Your task to perform on an android device: empty trash in google photos Image 0: 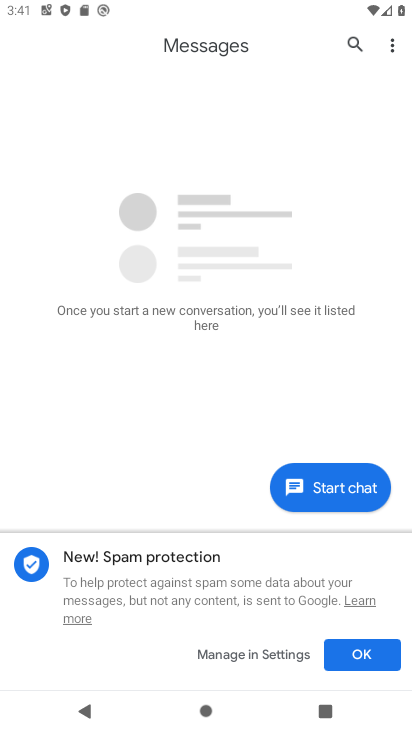
Step 0: press home button
Your task to perform on an android device: empty trash in google photos Image 1: 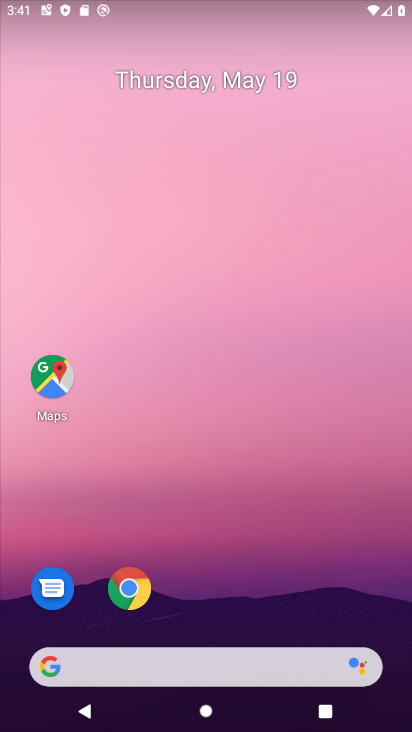
Step 1: drag from (205, 625) to (270, 125)
Your task to perform on an android device: empty trash in google photos Image 2: 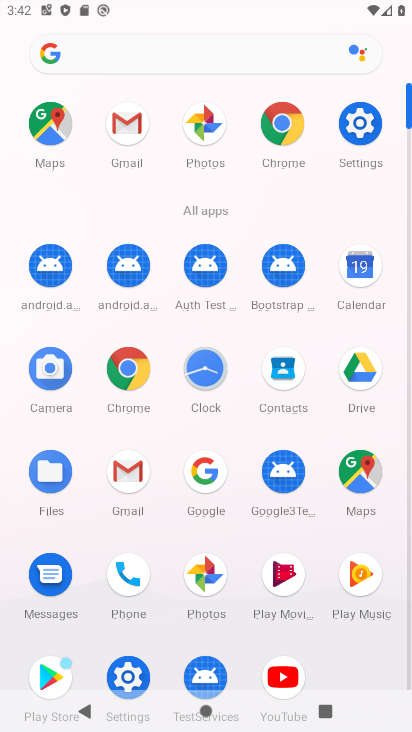
Step 2: click (195, 120)
Your task to perform on an android device: empty trash in google photos Image 3: 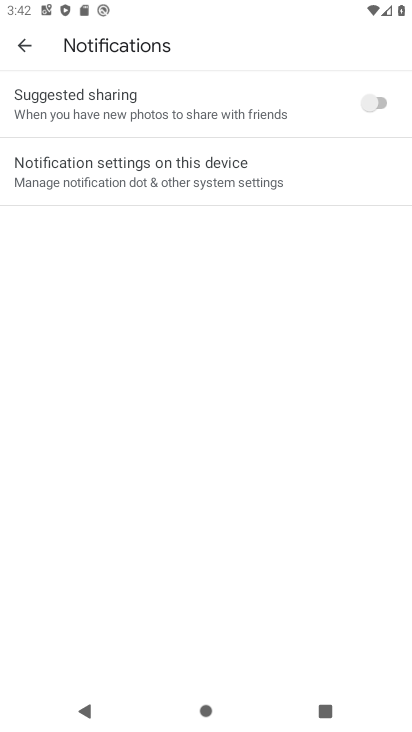
Step 3: click (40, 42)
Your task to perform on an android device: empty trash in google photos Image 4: 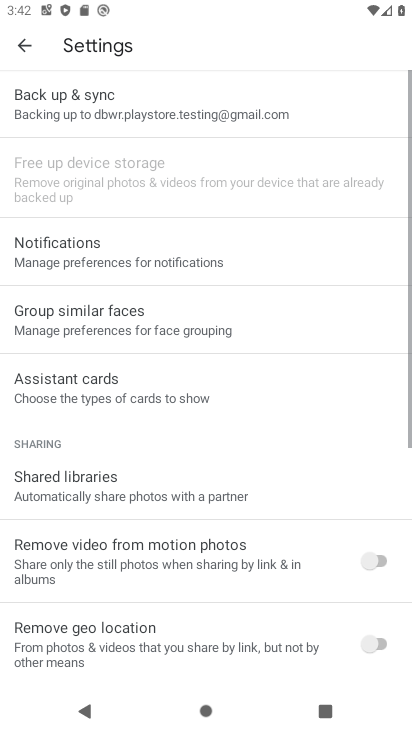
Step 4: click (40, 42)
Your task to perform on an android device: empty trash in google photos Image 5: 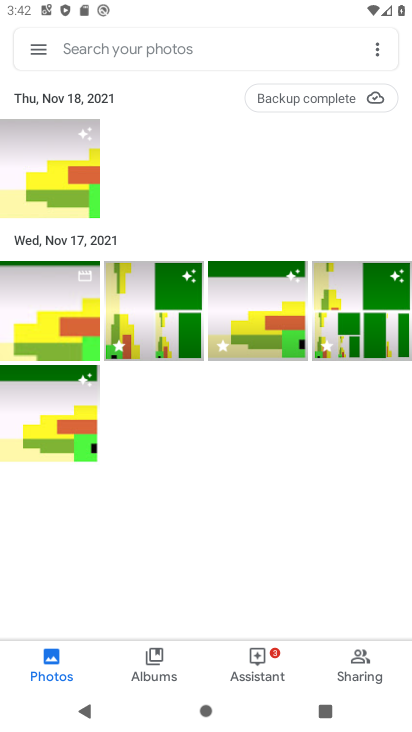
Step 5: click (39, 67)
Your task to perform on an android device: empty trash in google photos Image 6: 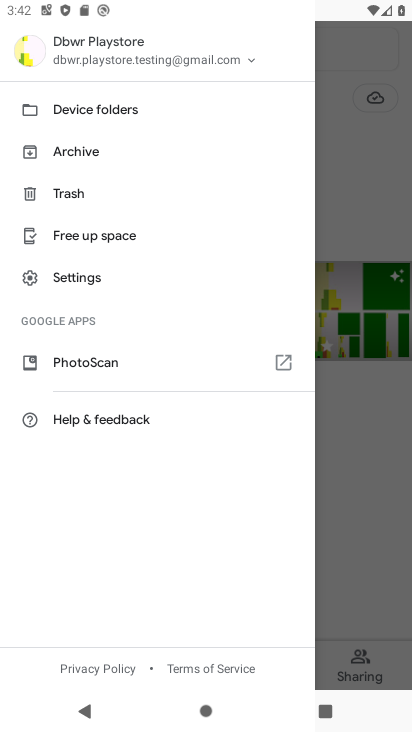
Step 6: click (81, 201)
Your task to perform on an android device: empty trash in google photos Image 7: 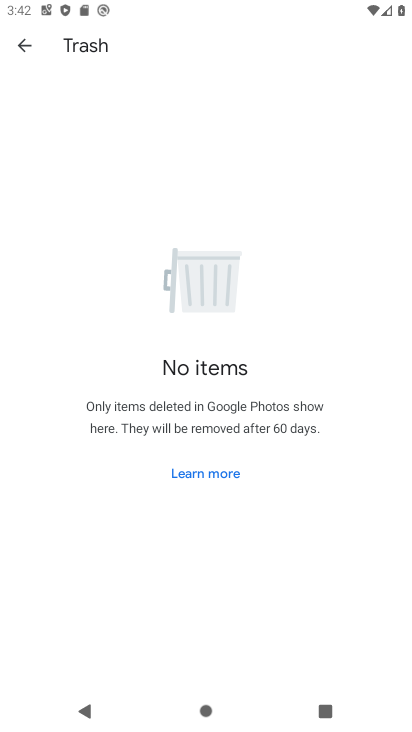
Step 7: task complete